Your task to perform on an android device: Go to privacy settings Image 0: 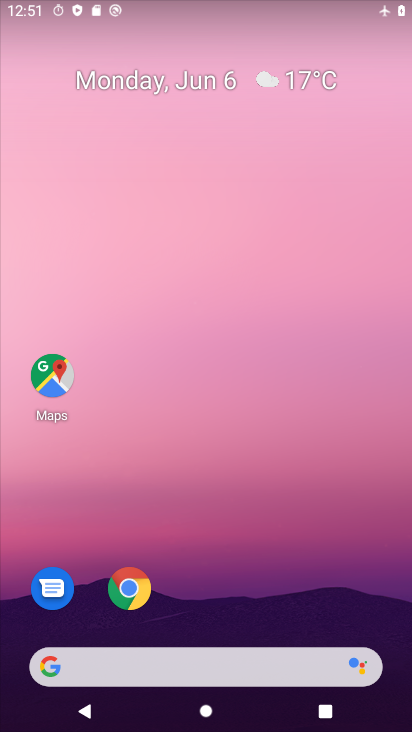
Step 0: drag from (276, 620) to (265, 153)
Your task to perform on an android device: Go to privacy settings Image 1: 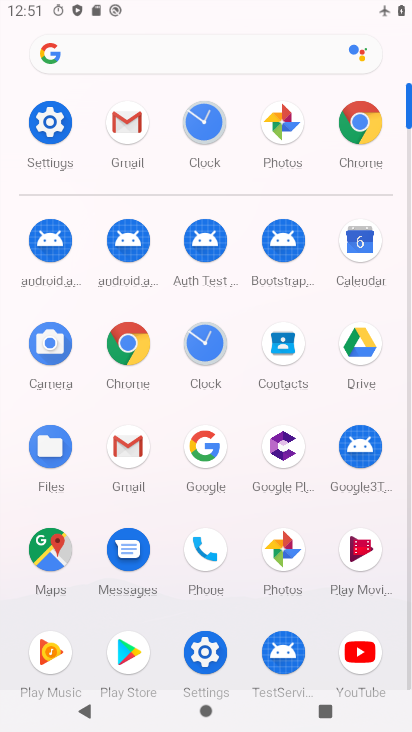
Step 1: click (46, 116)
Your task to perform on an android device: Go to privacy settings Image 2: 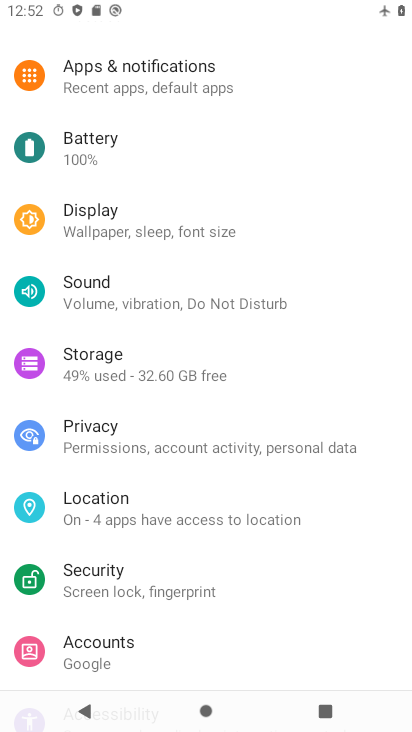
Step 2: drag from (315, 592) to (297, 152)
Your task to perform on an android device: Go to privacy settings Image 3: 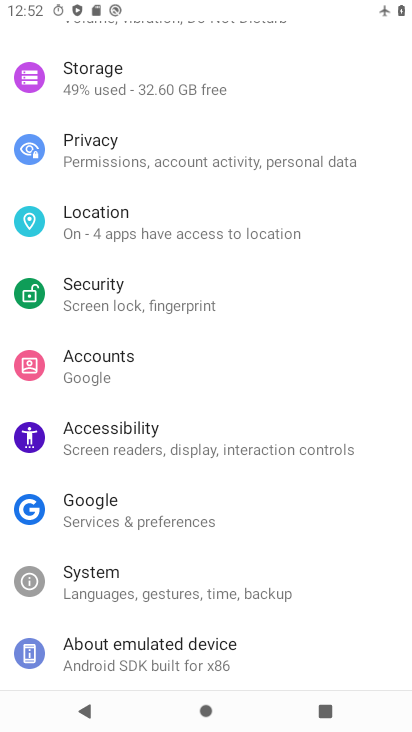
Step 3: drag from (226, 240) to (183, 465)
Your task to perform on an android device: Go to privacy settings Image 4: 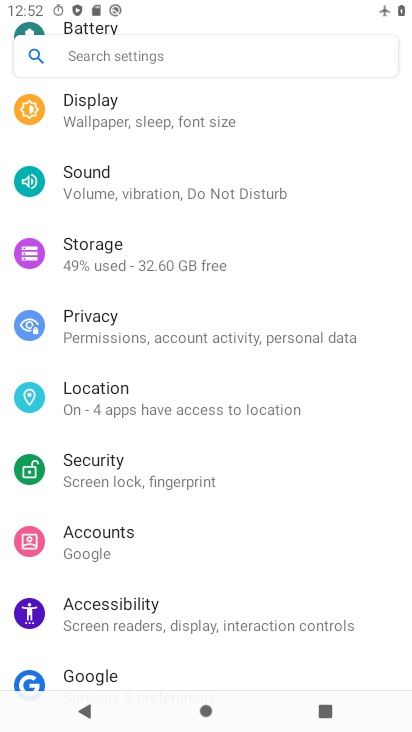
Step 4: click (148, 334)
Your task to perform on an android device: Go to privacy settings Image 5: 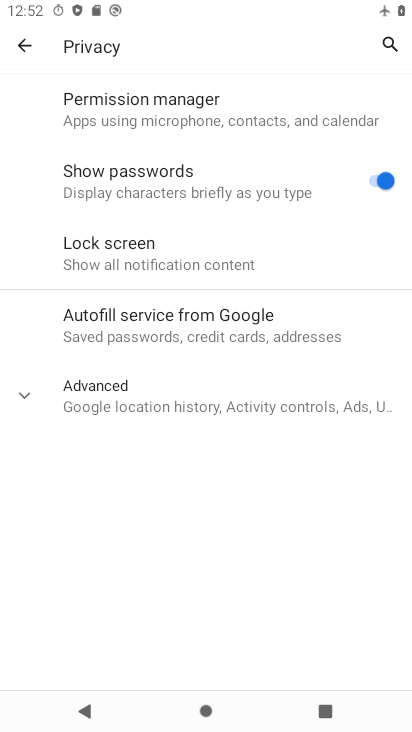
Step 5: task complete